Your task to perform on an android device: open app "Pandora - Music & Podcasts" Image 0: 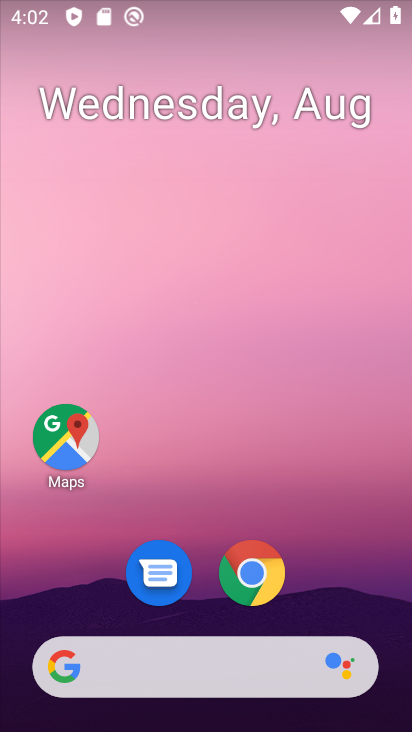
Step 0: drag from (213, 513) to (273, 99)
Your task to perform on an android device: open app "Pandora - Music & Podcasts" Image 1: 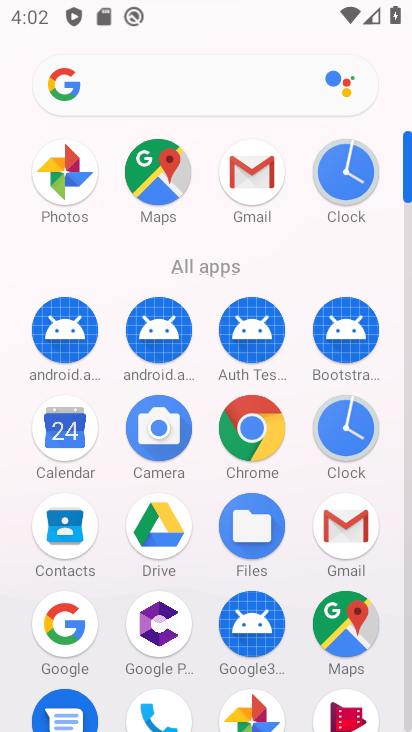
Step 1: drag from (202, 506) to (267, 117)
Your task to perform on an android device: open app "Pandora - Music & Podcasts" Image 2: 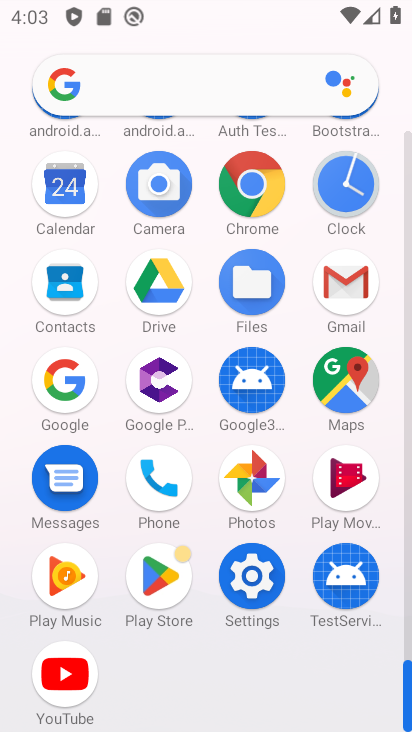
Step 2: drag from (213, 586) to (246, 249)
Your task to perform on an android device: open app "Pandora - Music & Podcasts" Image 3: 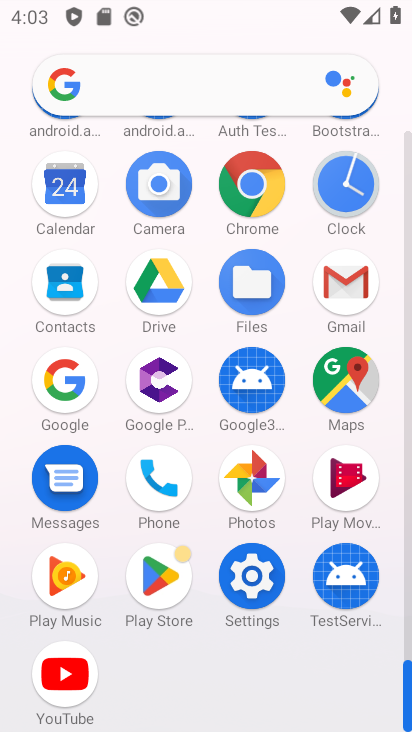
Step 3: click (165, 603)
Your task to perform on an android device: open app "Pandora - Music & Podcasts" Image 4: 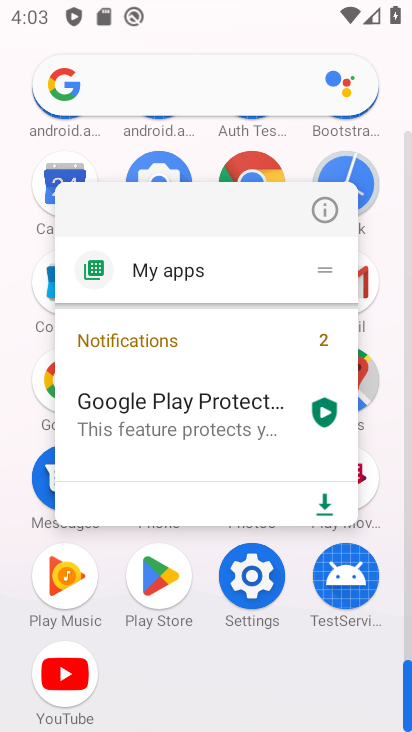
Step 4: click (158, 578)
Your task to perform on an android device: open app "Pandora - Music & Podcasts" Image 5: 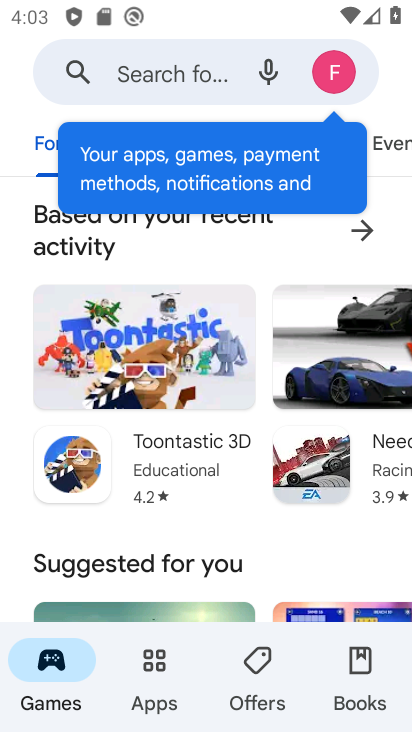
Step 5: click (130, 73)
Your task to perform on an android device: open app "Pandora - Music & Podcasts" Image 6: 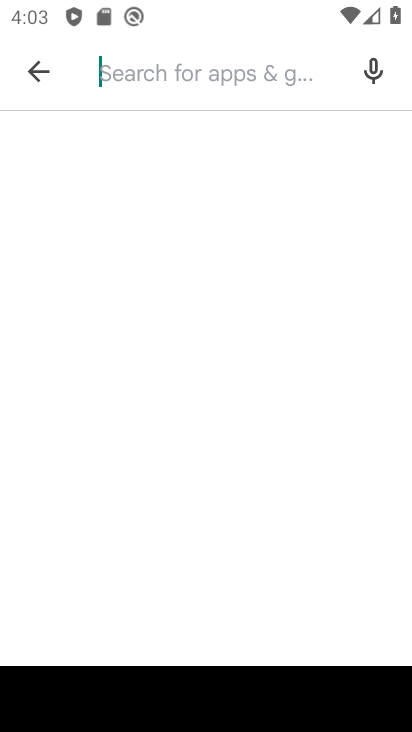
Step 6: type "Pandora - Music & Podcasts"
Your task to perform on an android device: open app "Pandora - Music & Podcasts" Image 7: 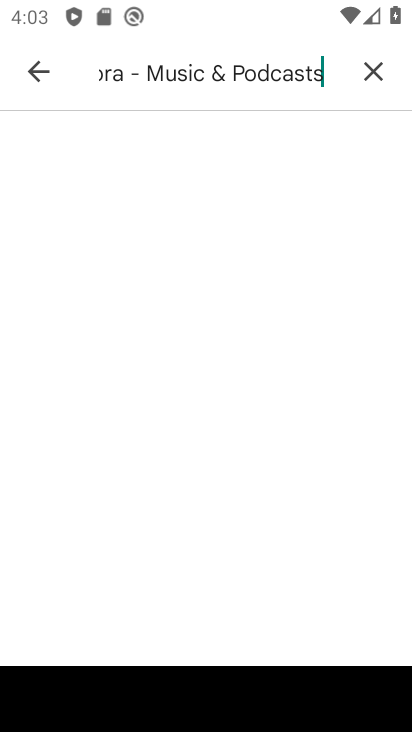
Step 7: type ""
Your task to perform on an android device: open app "Pandora - Music & Podcasts" Image 8: 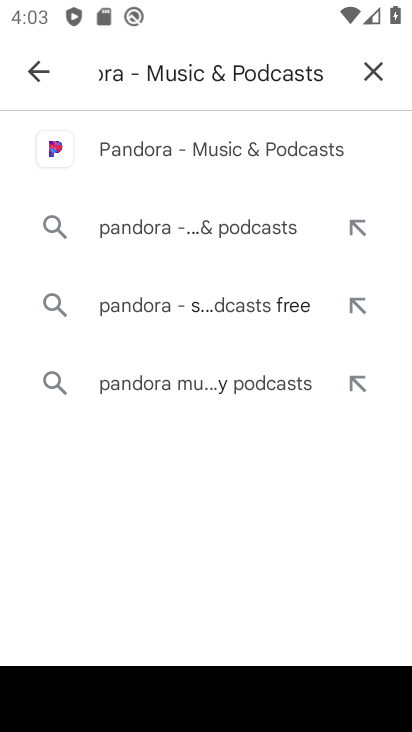
Step 8: click (236, 150)
Your task to perform on an android device: open app "Pandora - Music & Podcasts" Image 9: 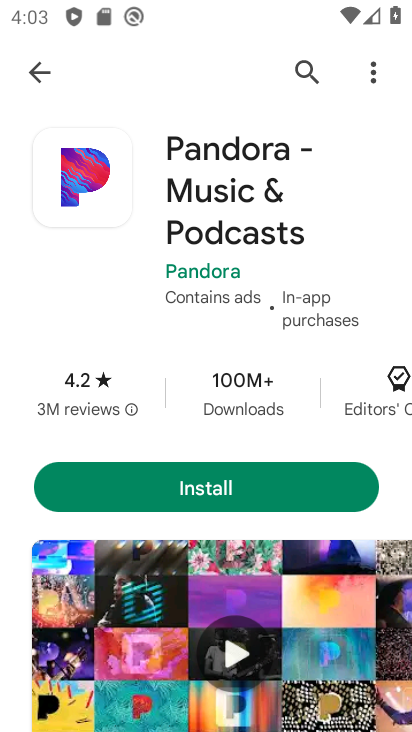
Step 9: task complete